Your task to perform on an android device: Open Google Chrome Image 0: 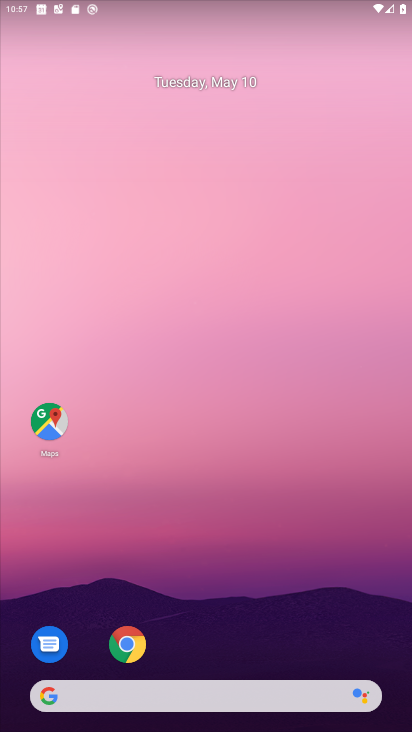
Step 0: drag from (248, 668) to (262, 378)
Your task to perform on an android device: Open Google Chrome Image 1: 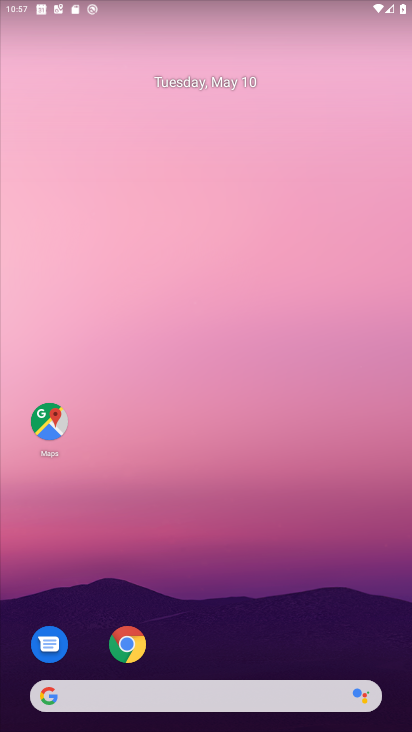
Step 1: drag from (305, 672) to (337, 194)
Your task to perform on an android device: Open Google Chrome Image 2: 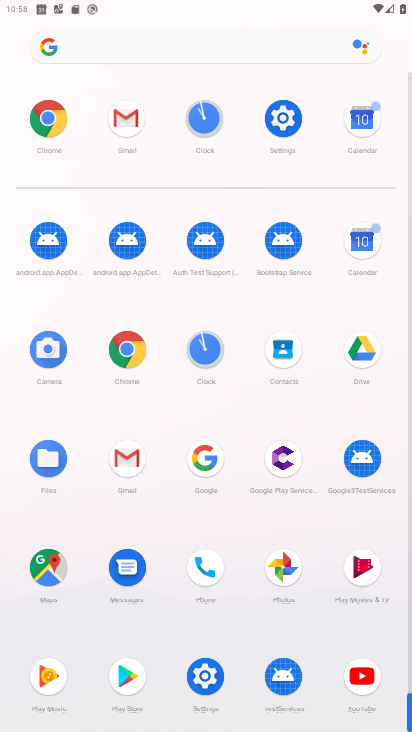
Step 2: click (64, 135)
Your task to perform on an android device: Open Google Chrome Image 3: 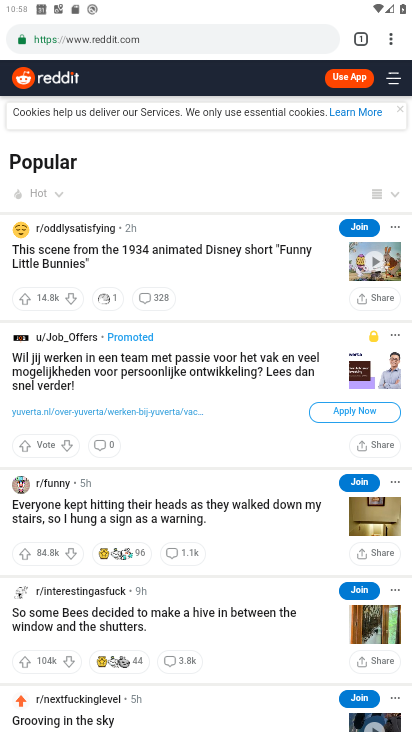
Step 3: task complete